Your task to perform on an android device: Go to battery settings Image 0: 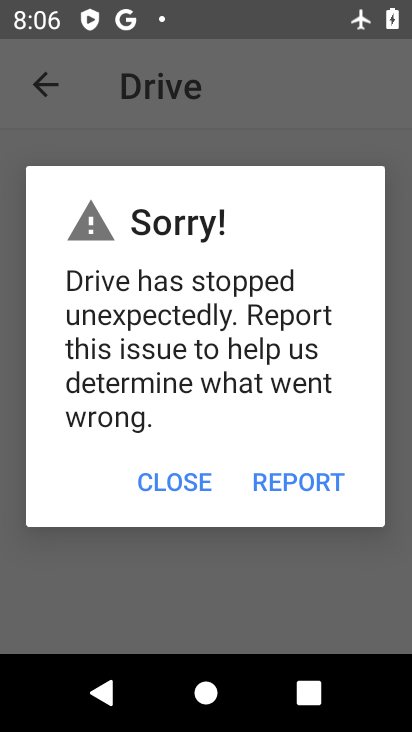
Step 0: press home button
Your task to perform on an android device: Go to battery settings Image 1: 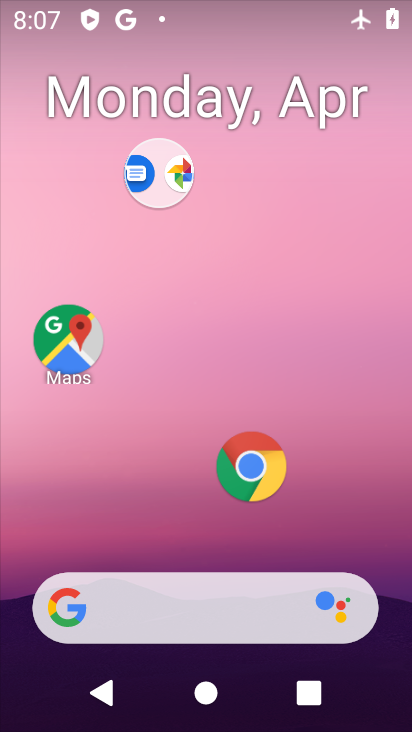
Step 1: drag from (178, 519) to (212, 324)
Your task to perform on an android device: Go to battery settings Image 2: 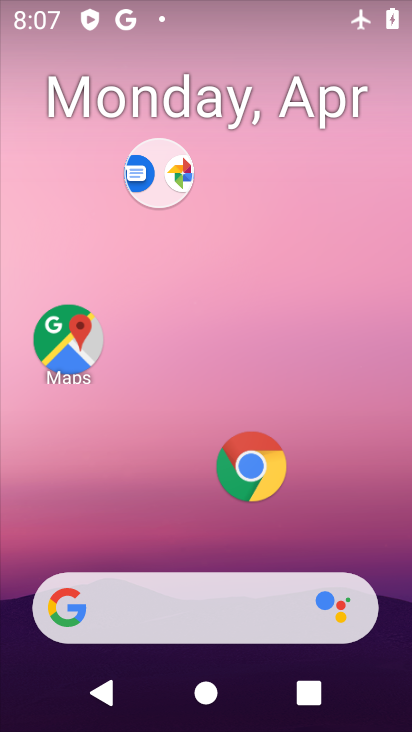
Step 2: drag from (209, 566) to (17, 0)
Your task to perform on an android device: Go to battery settings Image 3: 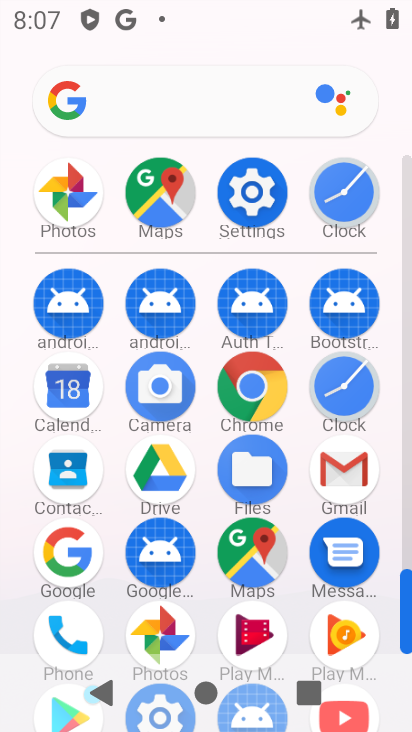
Step 3: click (256, 196)
Your task to perform on an android device: Go to battery settings Image 4: 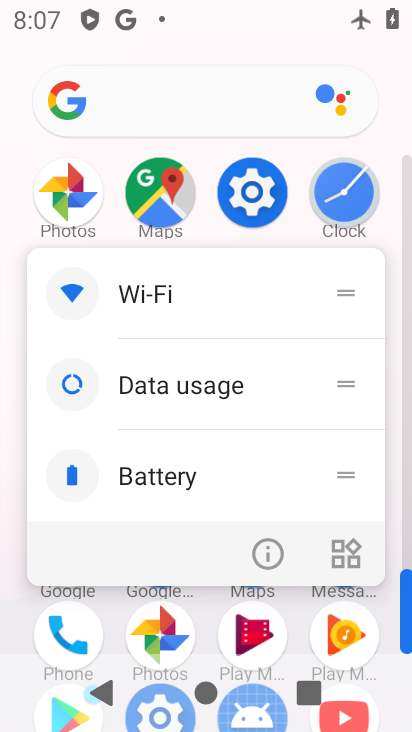
Step 4: click (201, 480)
Your task to perform on an android device: Go to battery settings Image 5: 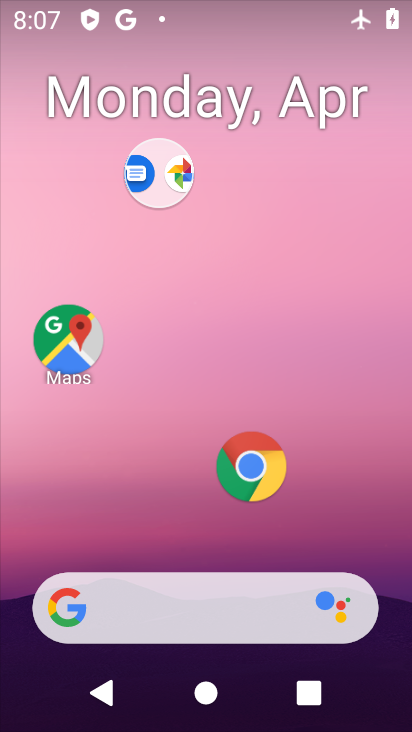
Step 5: drag from (214, 543) to (330, 169)
Your task to perform on an android device: Go to battery settings Image 6: 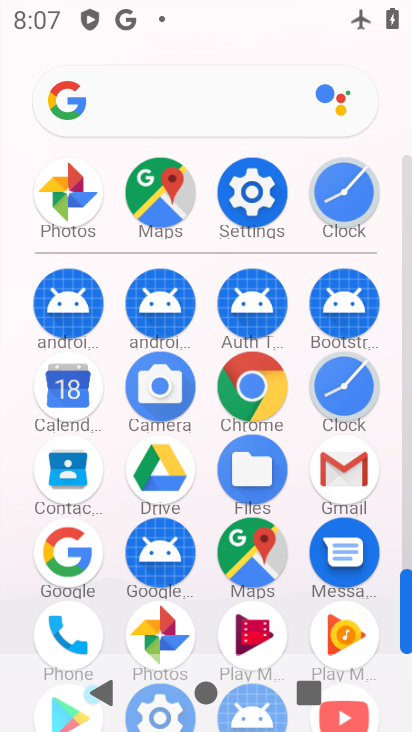
Step 6: click (264, 194)
Your task to perform on an android device: Go to battery settings Image 7: 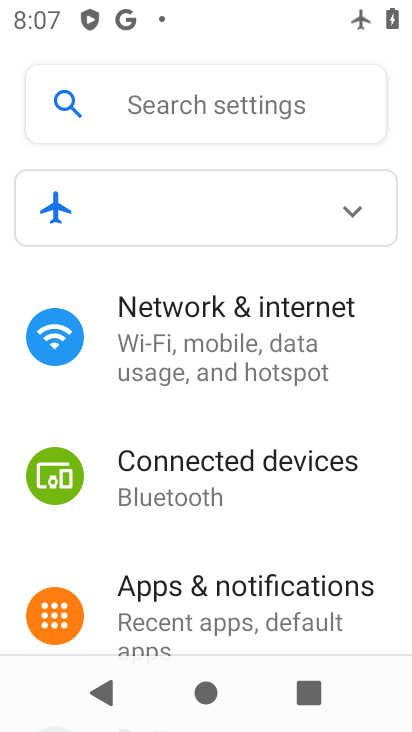
Step 7: drag from (171, 475) to (180, 159)
Your task to perform on an android device: Go to battery settings Image 8: 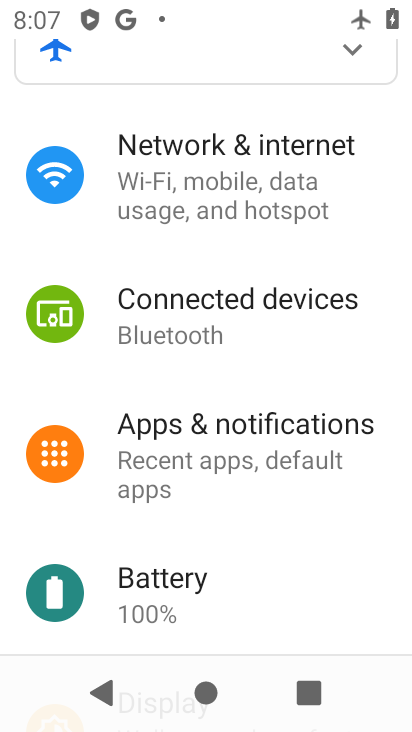
Step 8: click (244, 579)
Your task to perform on an android device: Go to battery settings Image 9: 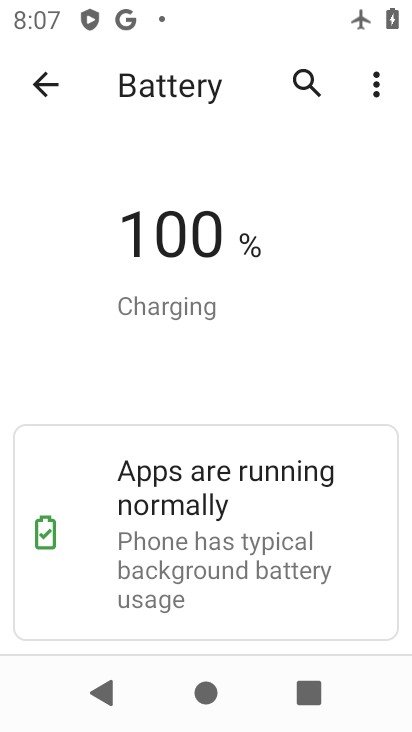
Step 9: click (377, 76)
Your task to perform on an android device: Go to battery settings Image 10: 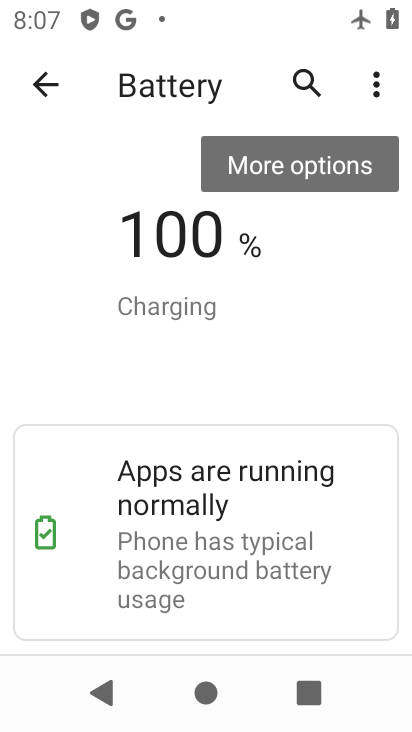
Step 10: click (263, 167)
Your task to perform on an android device: Go to battery settings Image 11: 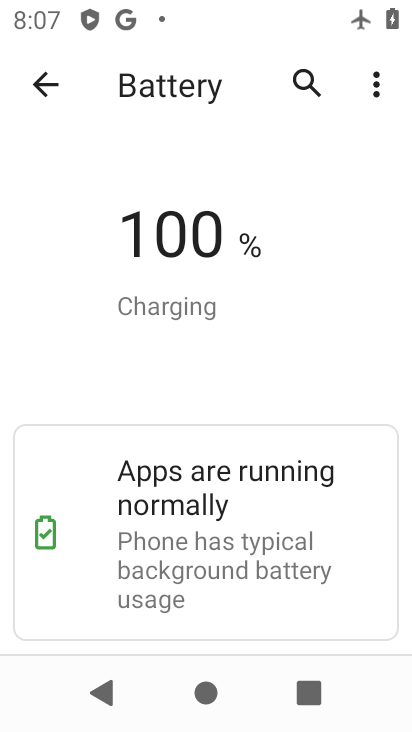
Step 11: drag from (268, 386) to (276, 169)
Your task to perform on an android device: Go to battery settings Image 12: 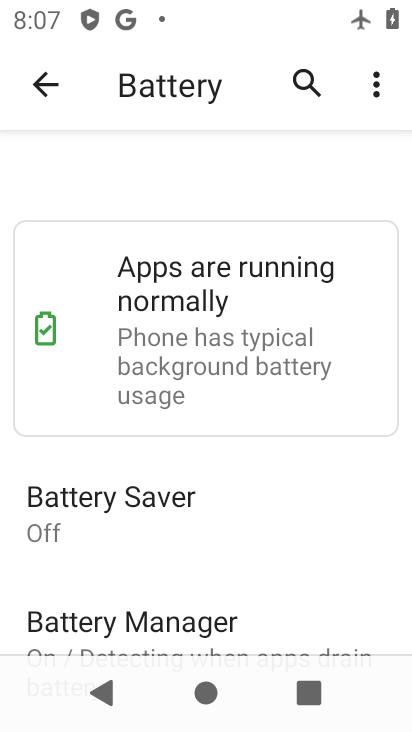
Step 12: drag from (227, 148) to (384, 615)
Your task to perform on an android device: Go to battery settings Image 13: 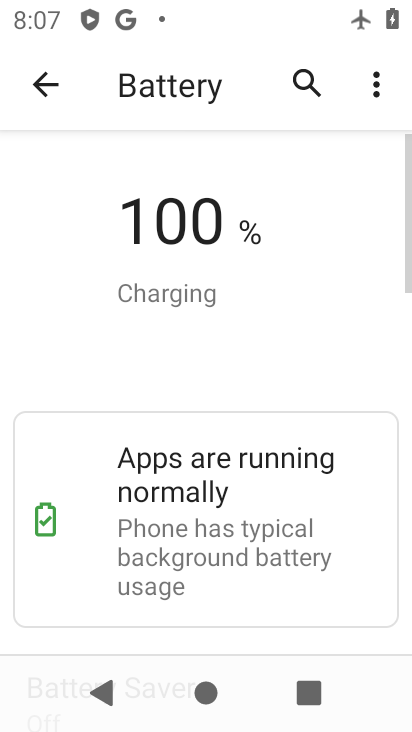
Step 13: click (383, 83)
Your task to perform on an android device: Go to battery settings Image 14: 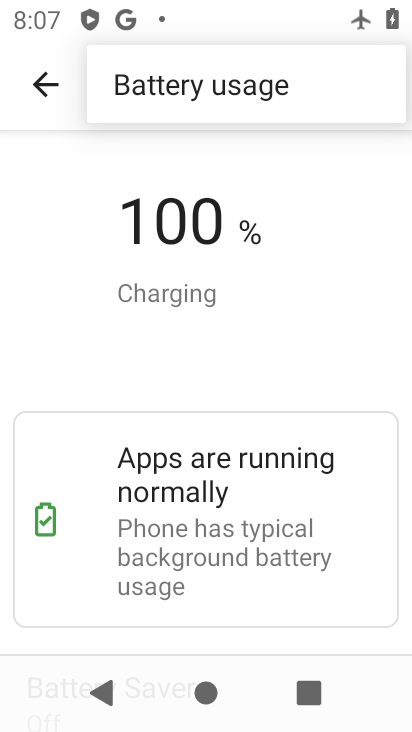
Step 14: click (253, 96)
Your task to perform on an android device: Go to battery settings Image 15: 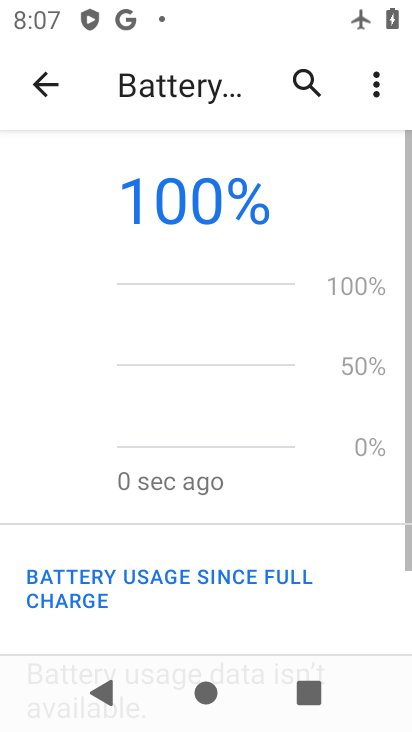
Step 15: task complete